Your task to perform on an android device: Show me the alarms in the clock app Image 0: 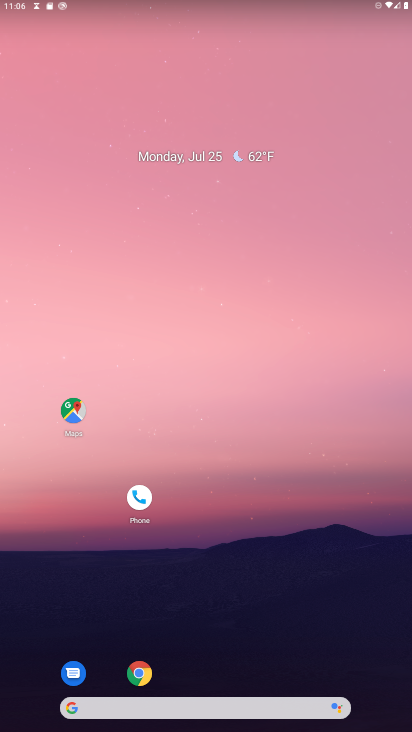
Step 0: press home button
Your task to perform on an android device: Show me the alarms in the clock app Image 1: 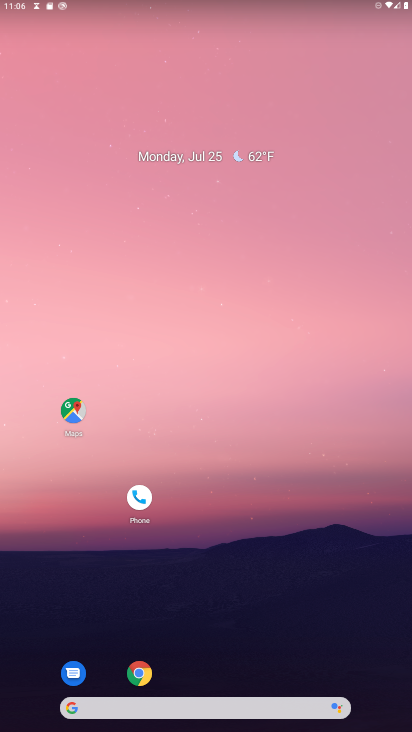
Step 1: drag from (317, 610) to (316, 112)
Your task to perform on an android device: Show me the alarms in the clock app Image 2: 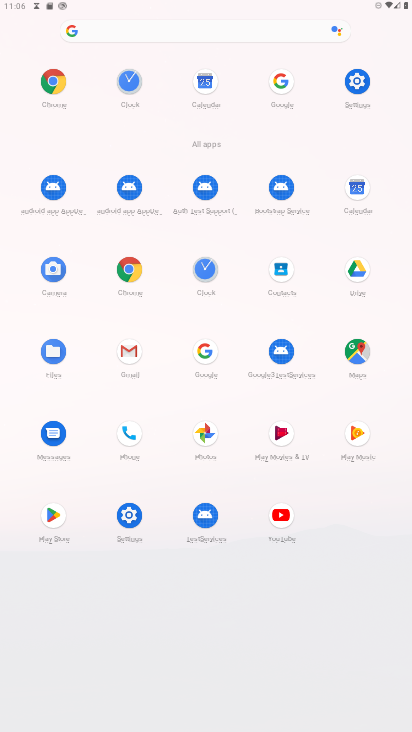
Step 2: click (203, 267)
Your task to perform on an android device: Show me the alarms in the clock app Image 3: 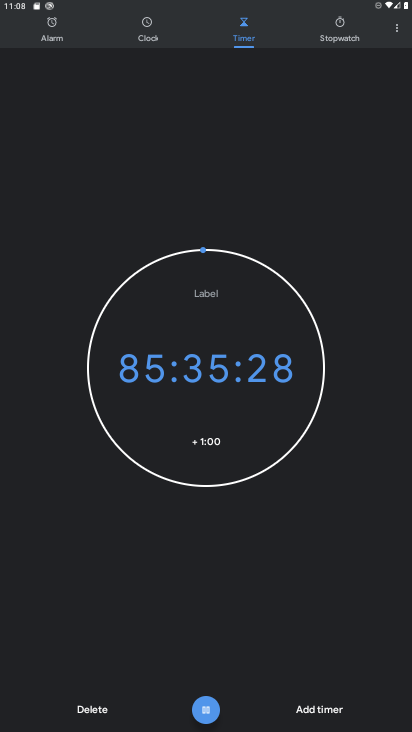
Step 3: click (49, 28)
Your task to perform on an android device: Show me the alarms in the clock app Image 4: 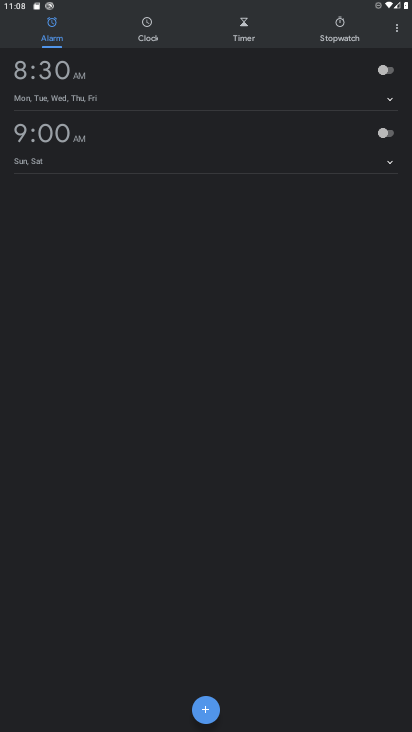
Step 4: task complete